Your task to perform on an android device: install app "Mercado Libre" Image 0: 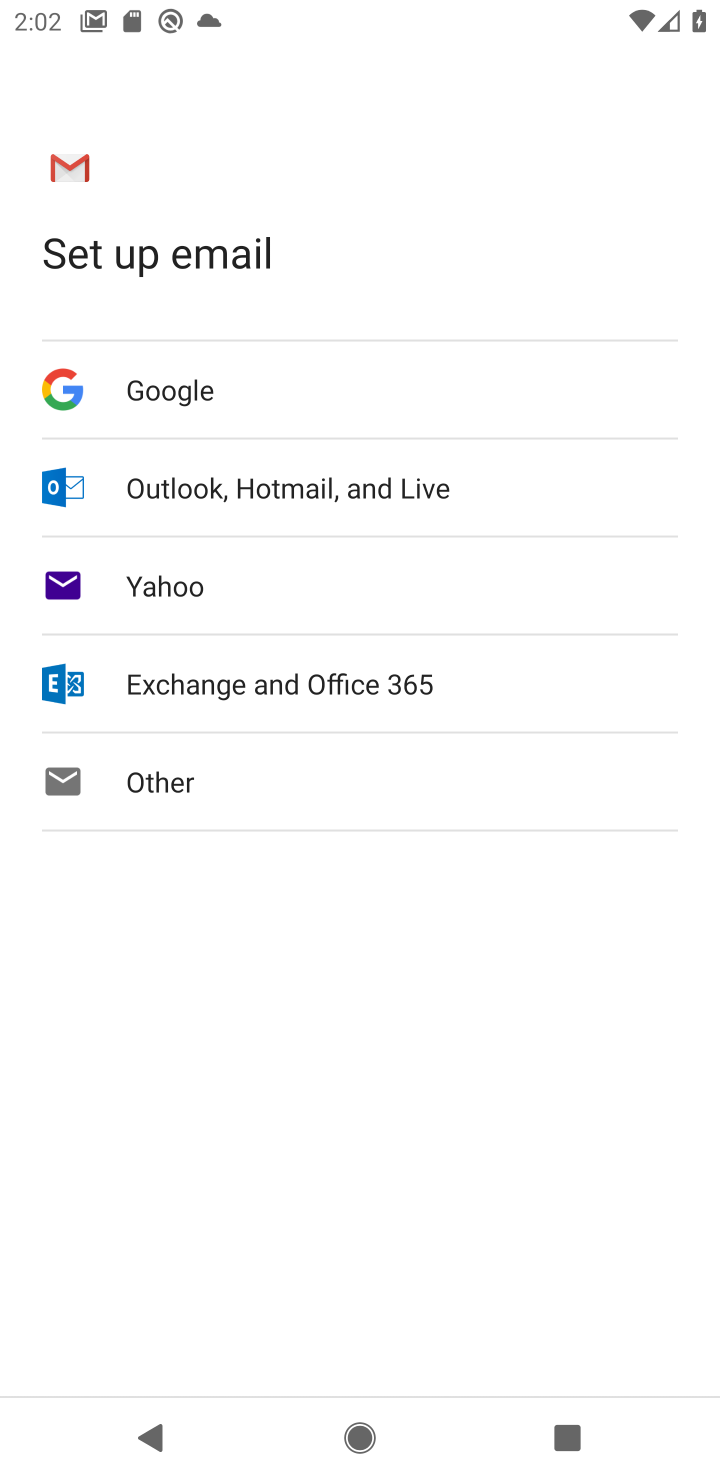
Step 0: press home button
Your task to perform on an android device: install app "Mercado Libre" Image 1: 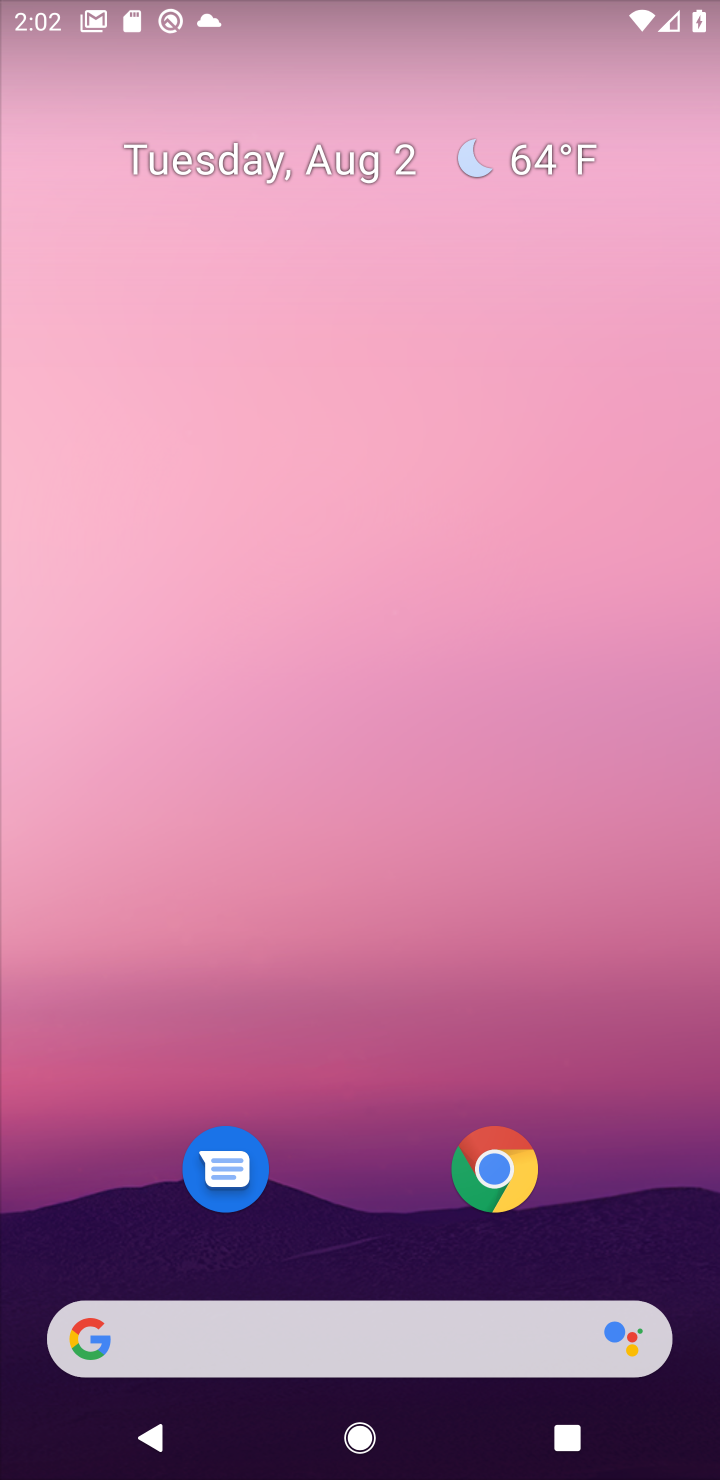
Step 1: drag from (364, 1256) to (417, 121)
Your task to perform on an android device: install app "Mercado Libre" Image 2: 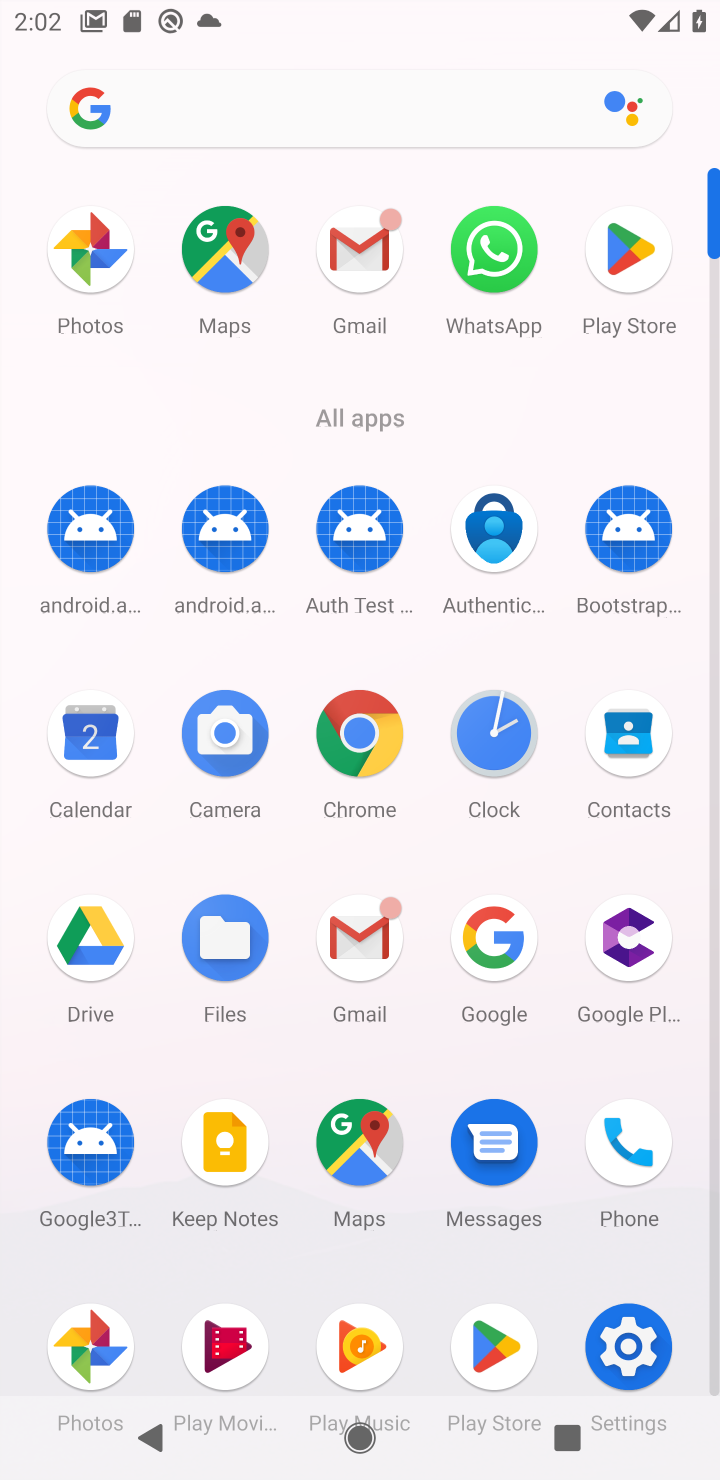
Step 2: click (628, 234)
Your task to perform on an android device: install app "Mercado Libre" Image 3: 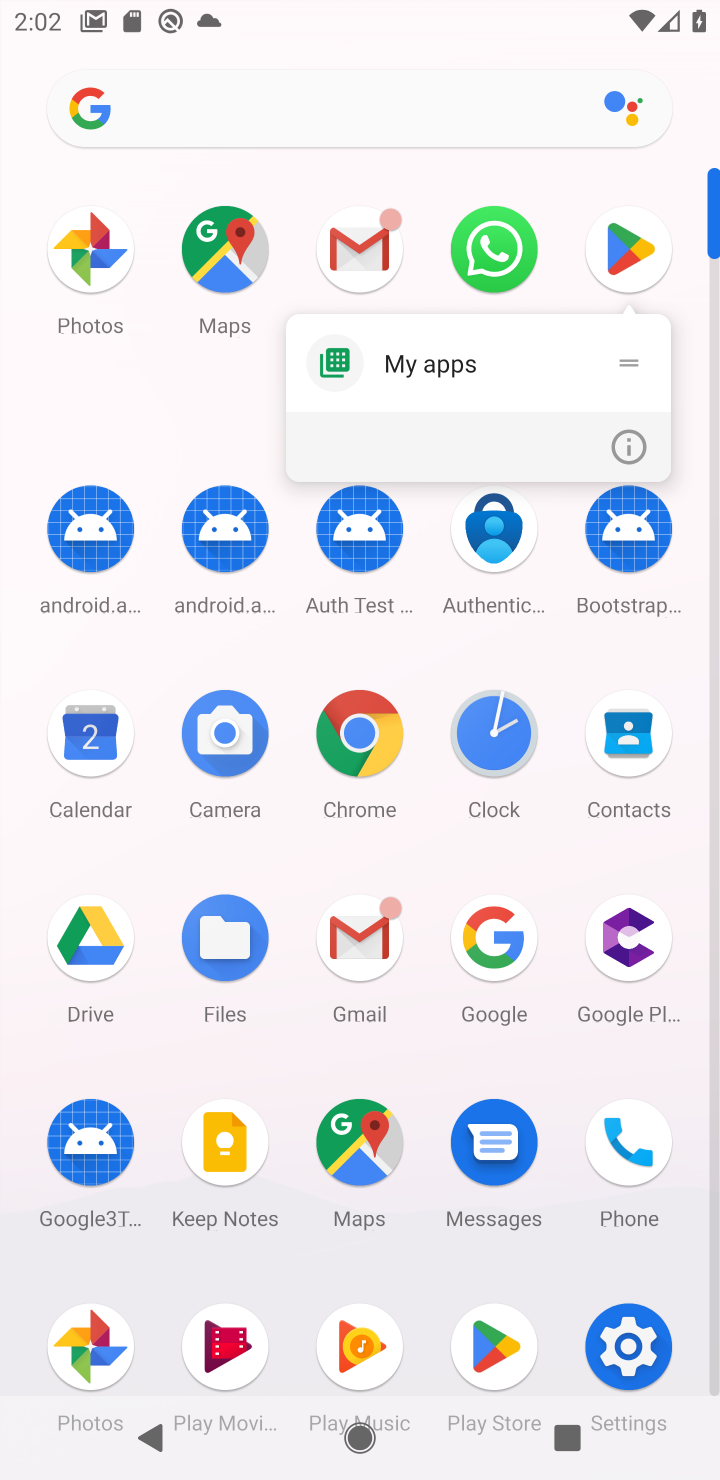
Step 3: click (628, 235)
Your task to perform on an android device: install app "Mercado Libre" Image 4: 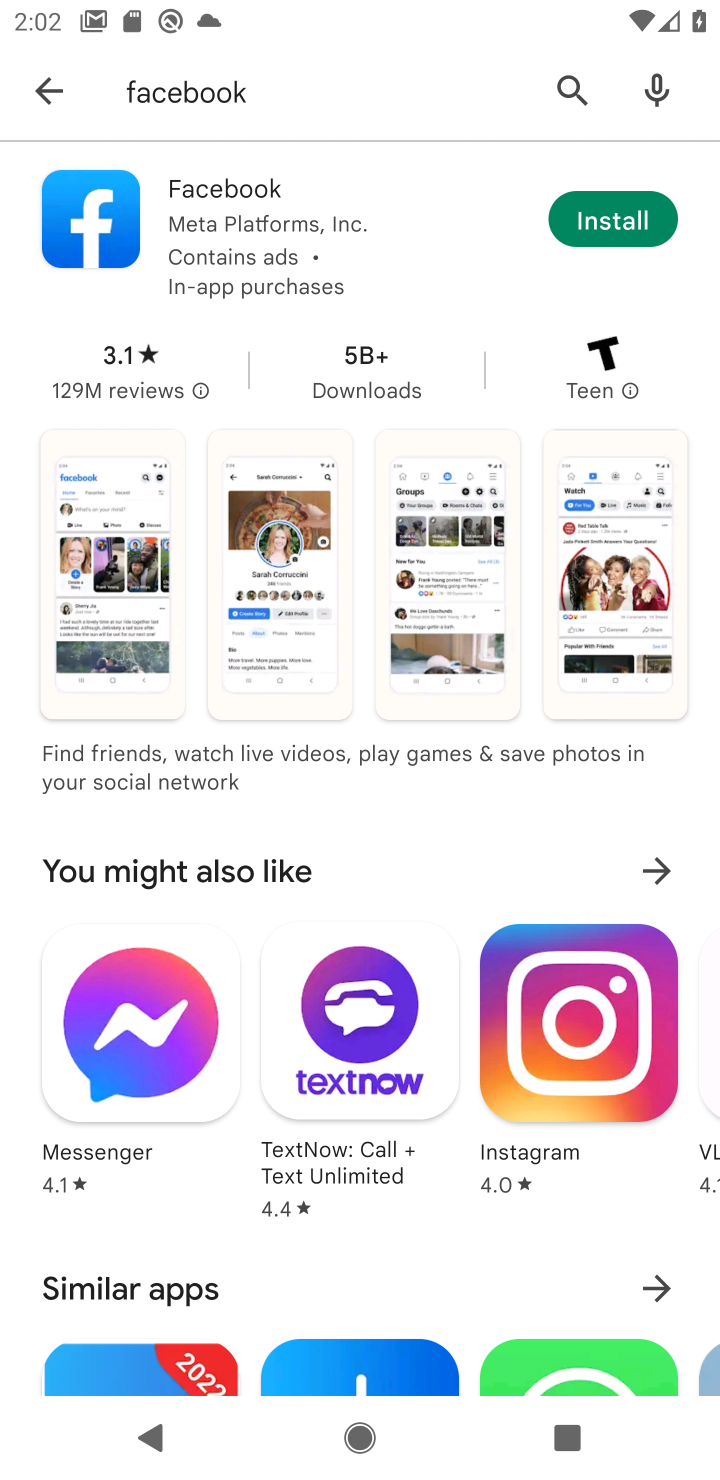
Step 4: click (575, 81)
Your task to perform on an android device: install app "Mercado Libre" Image 5: 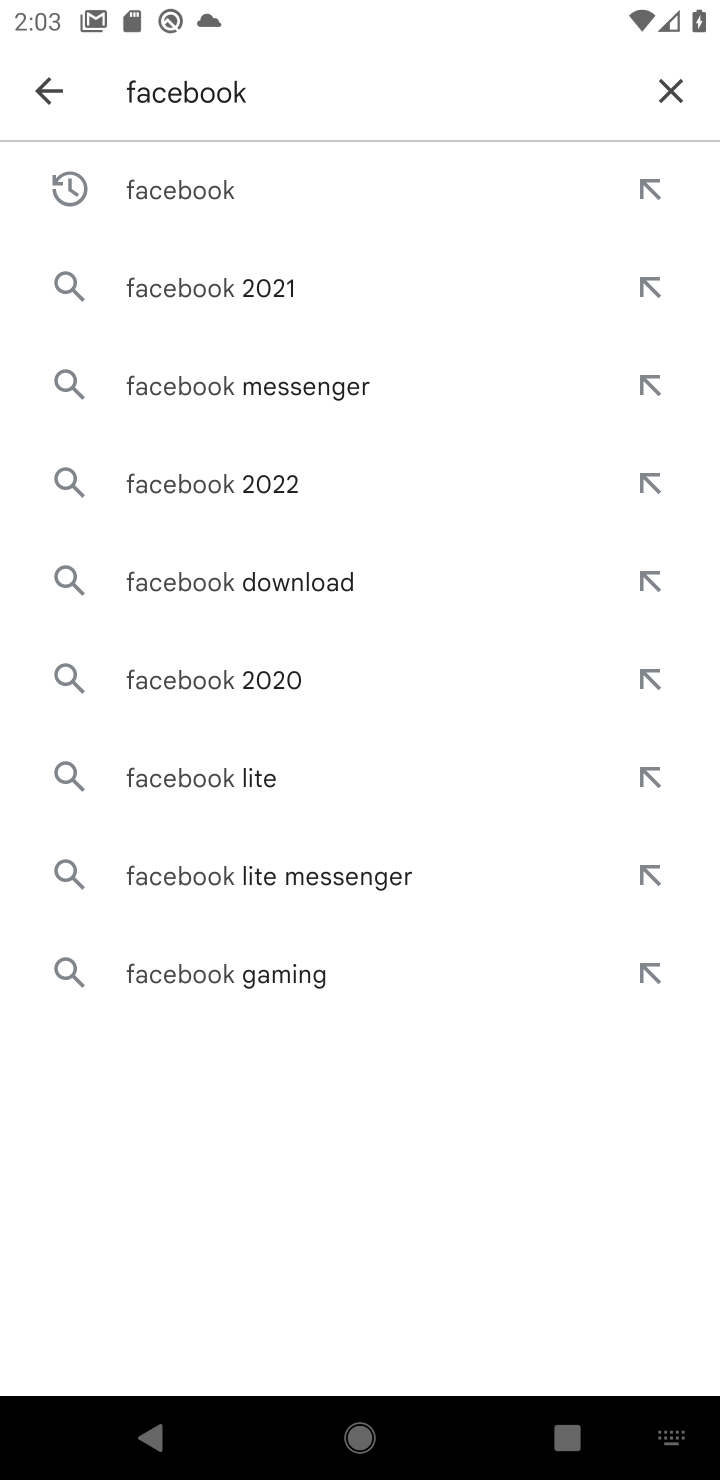
Step 5: click (664, 87)
Your task to perform on an android device: install app "Mercado Libre" Image 6: 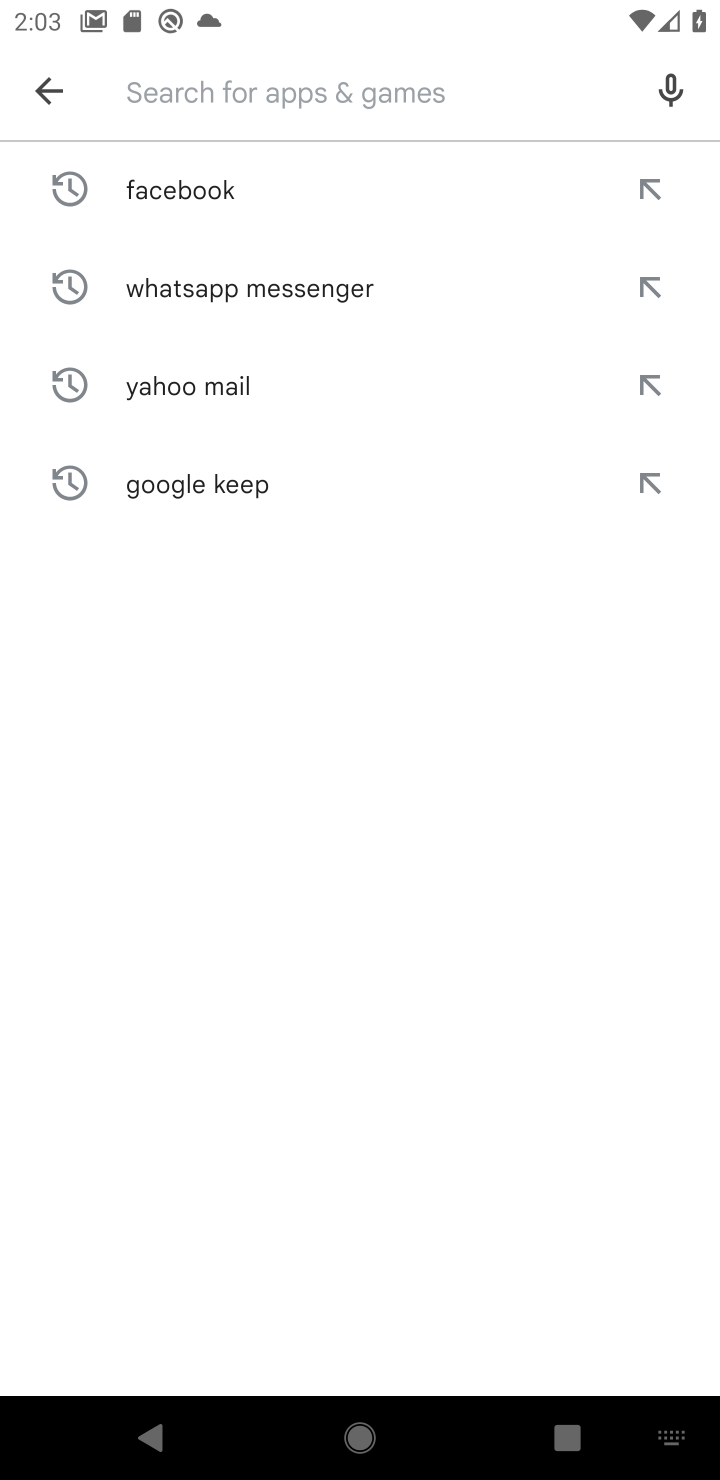
Step 6: type "Mercado Libre"
Your task to perform on an android device: install app "Mercado Libre" Image 7: 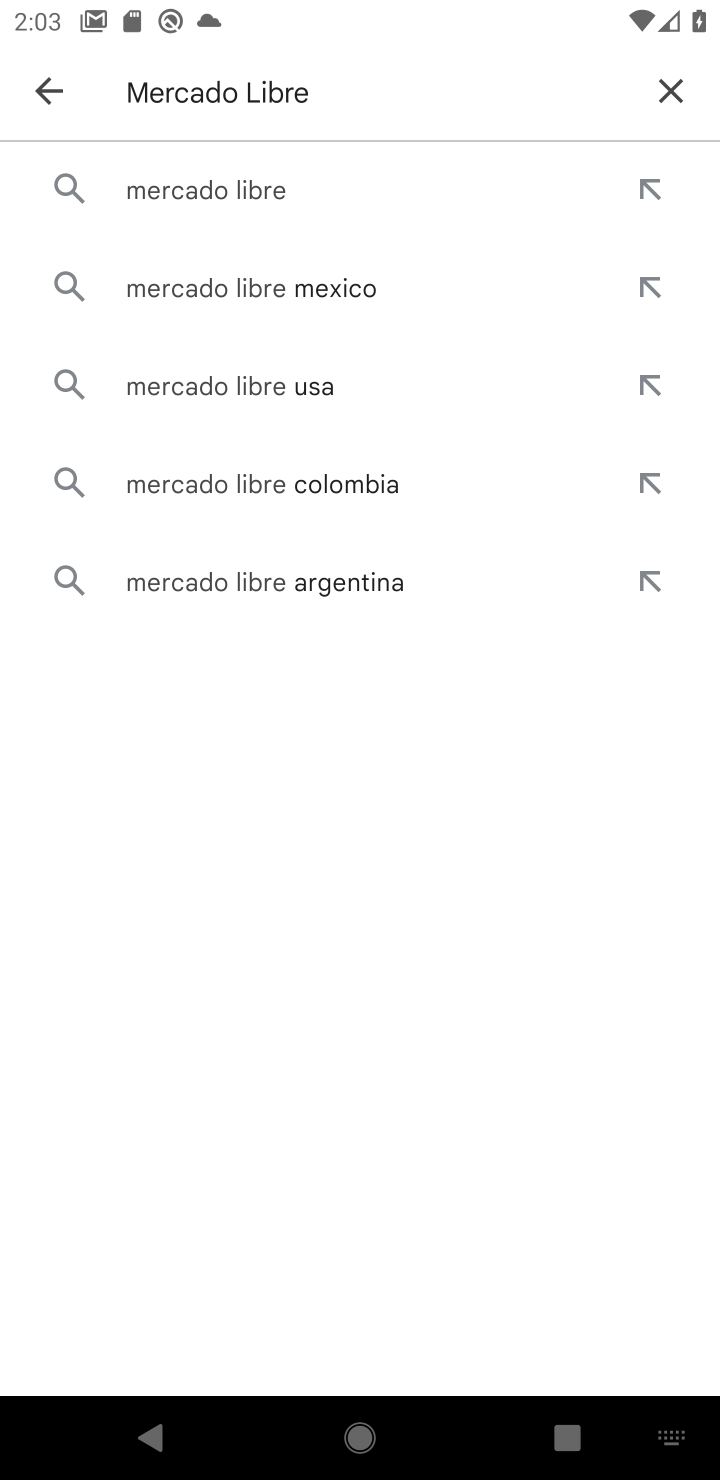
Step 7: click (288, 193)
Your task to perform on an android device: install app "Mercado Libre" Image 8: 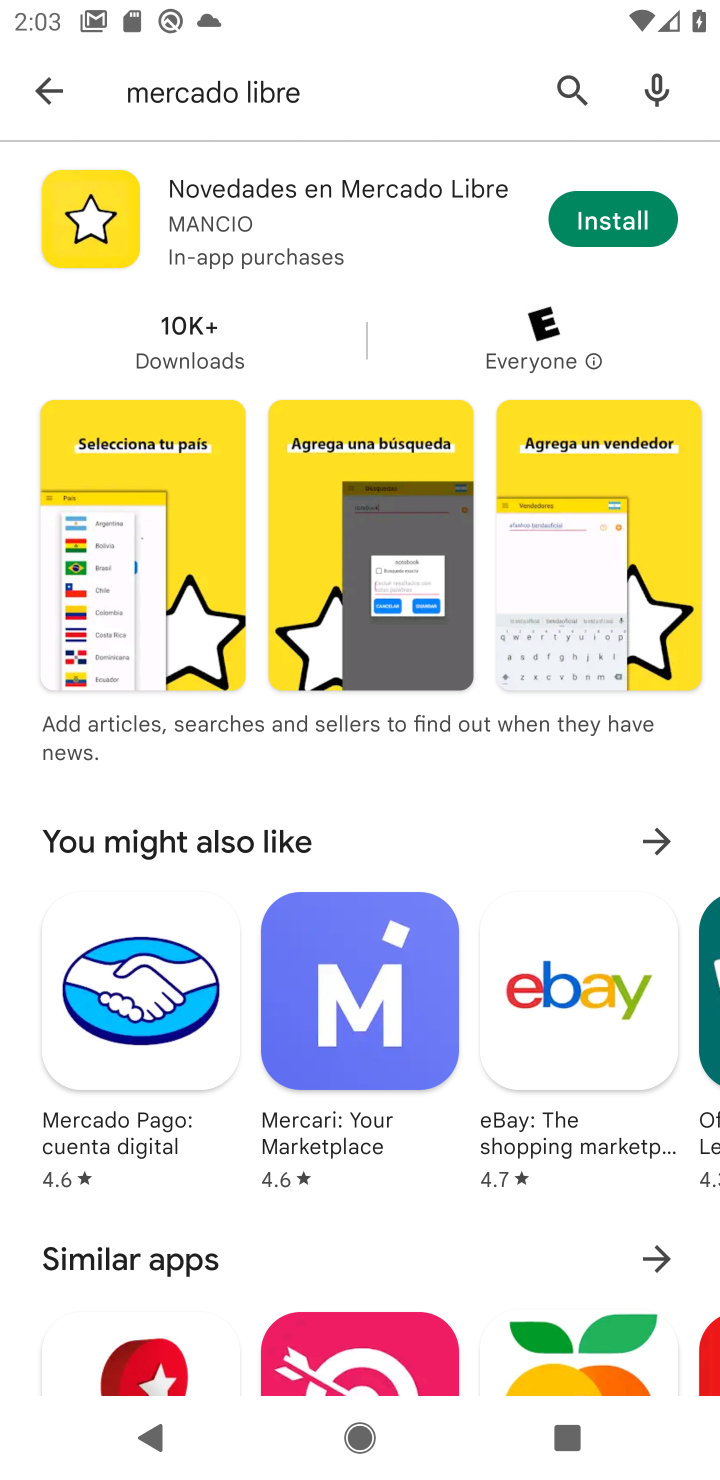
Step 8: click (612, 226)
Your task to perform on an android device: install app "Mercado Libre" Image 9: 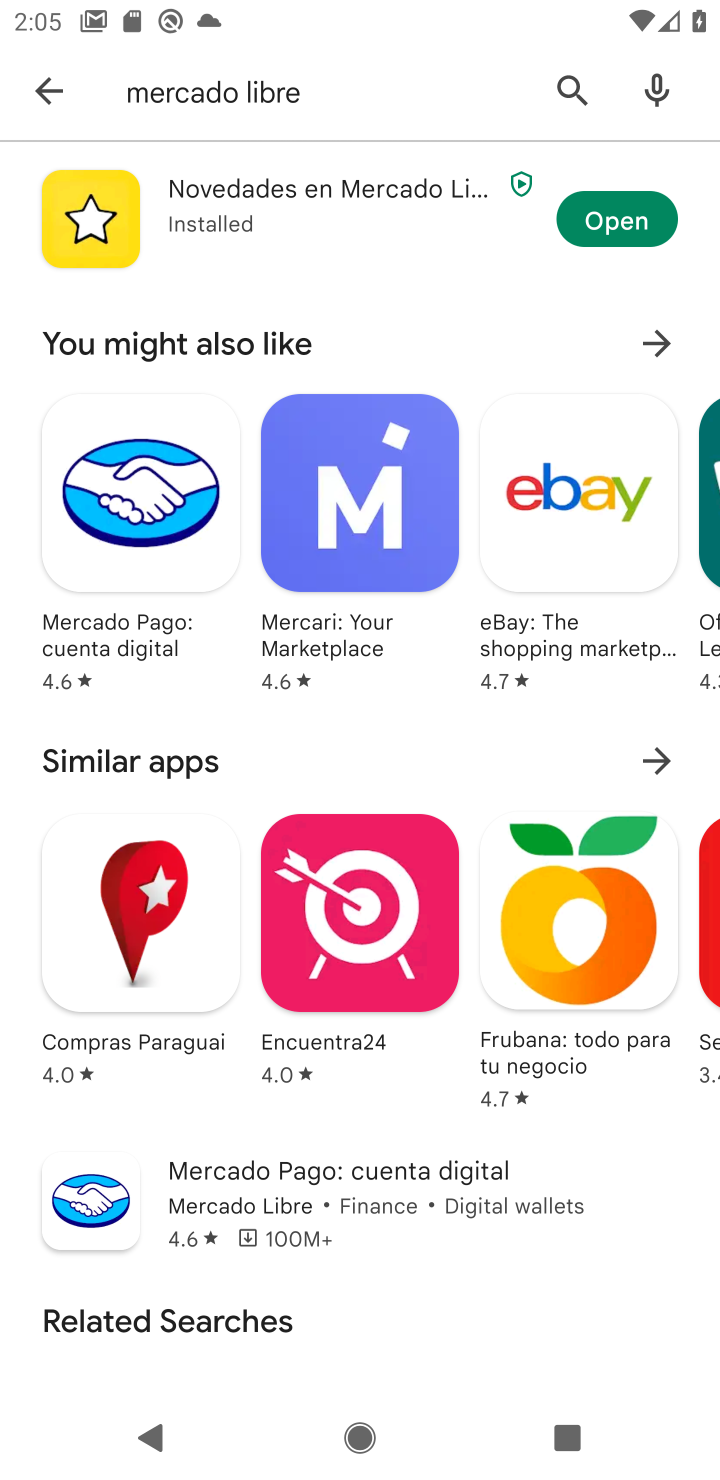
Step 9: click (611, 198)
Your task to perform on an android device: install app "Mercado Libre" Image 10: 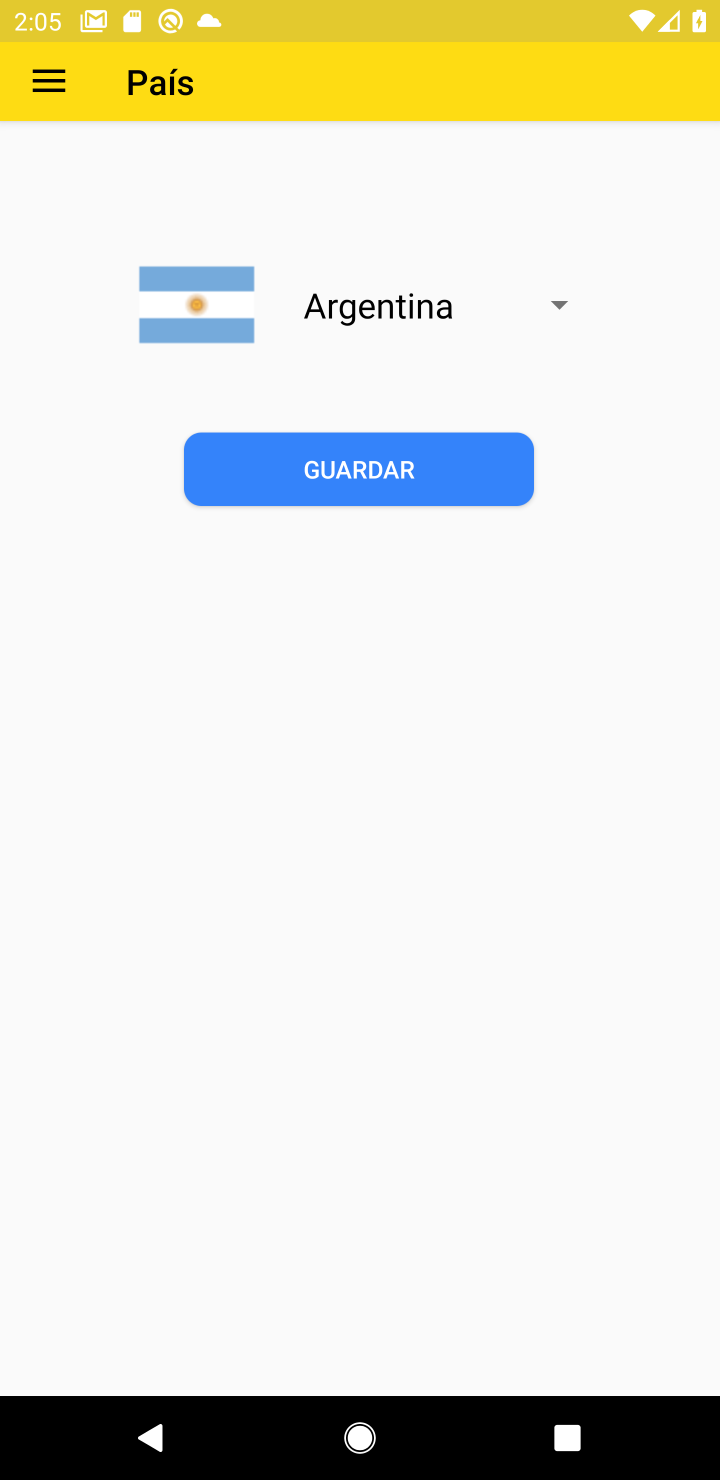
Step 10: click (367, 465)
Your task to perform on an android device: install app "Mercado Libre" Image 11: 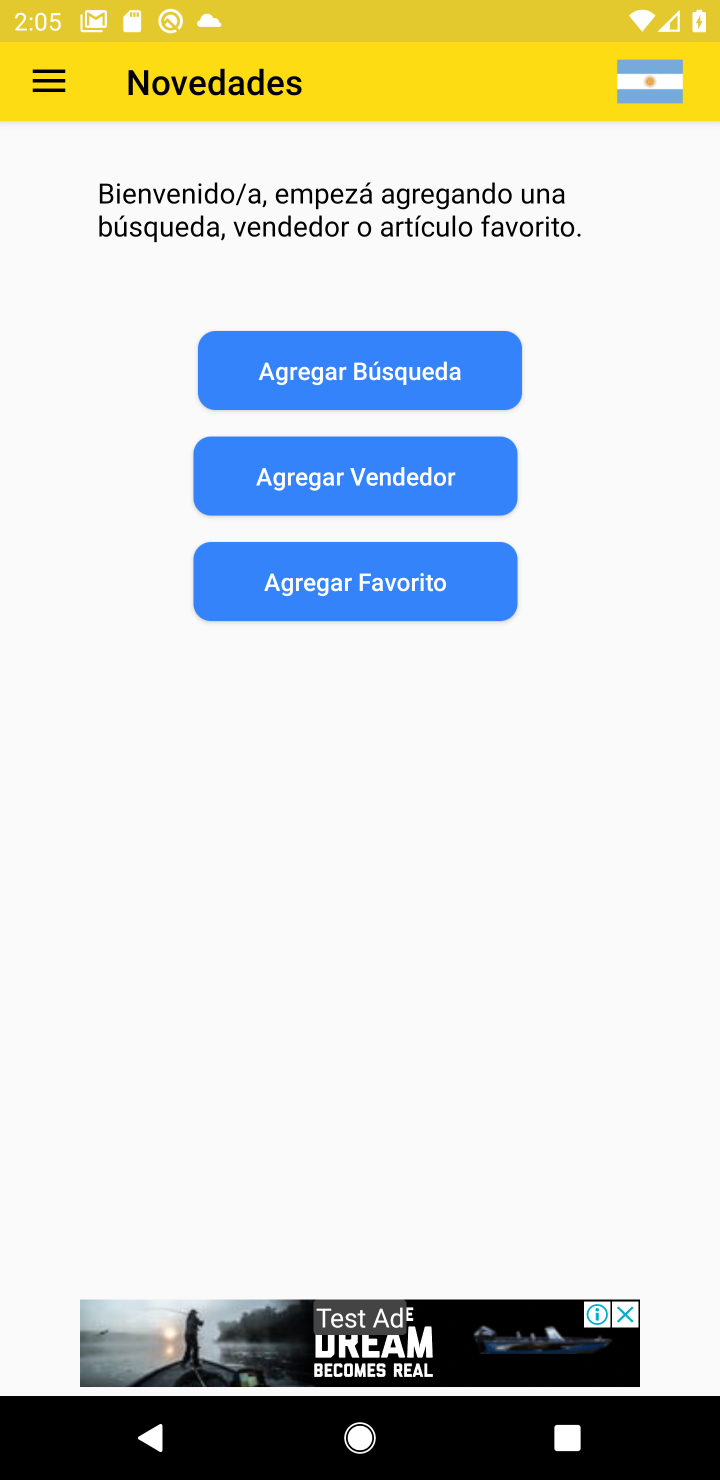
Step 11: task complete